Your task to perform on an android device: Open settings Image 0: 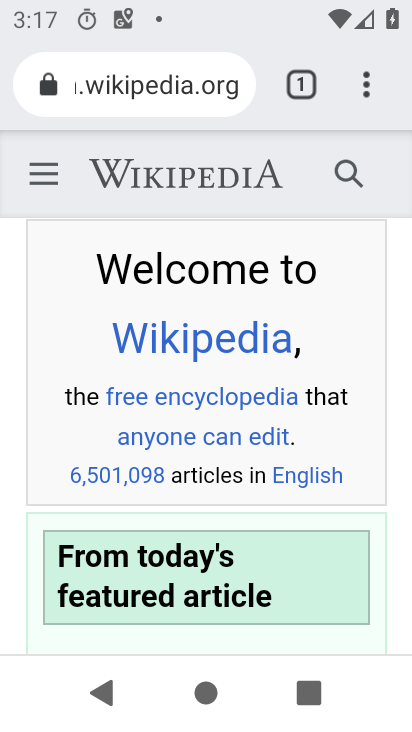
Step 0: press home button
Your task to perform on an android device: Open settings Image 1: 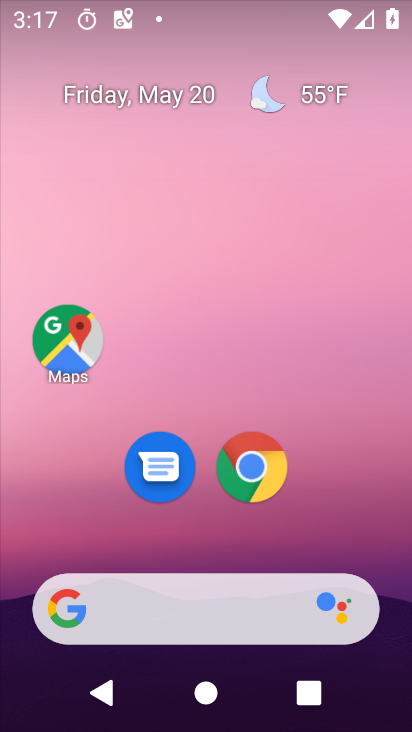
Step 1: drag from (236, 554) to (188, 37)
Your task to perform on an android device: Open settings Image 2: 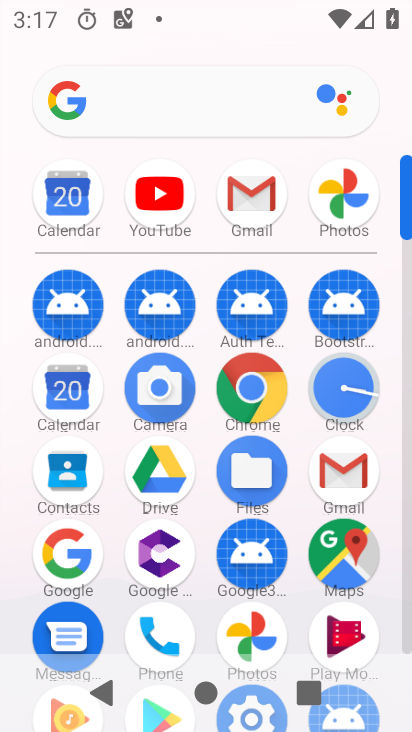
Step 2: drag from (210, 612) to (198, 269)
Your task to perform on an android device: Open settings Image 3: 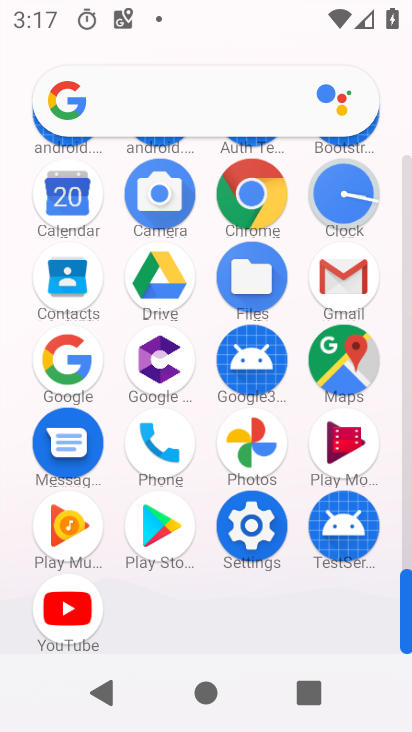
Step 3: click (251, 527)
Your task to perform on an android device: Open settings Image 4: 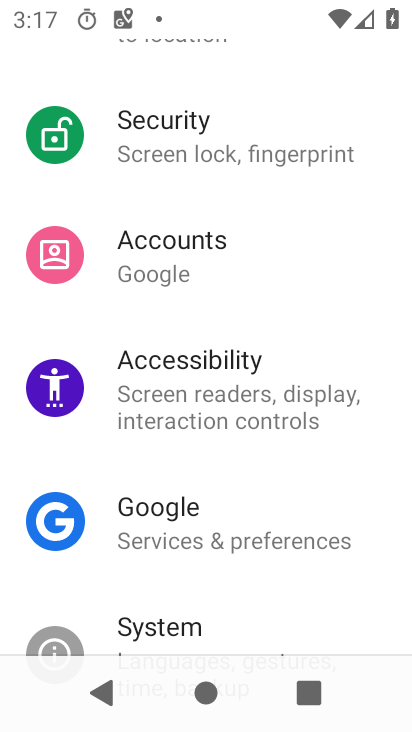
Step 4: task complete